Your task to perform on an android device: Check the weather Image 0: 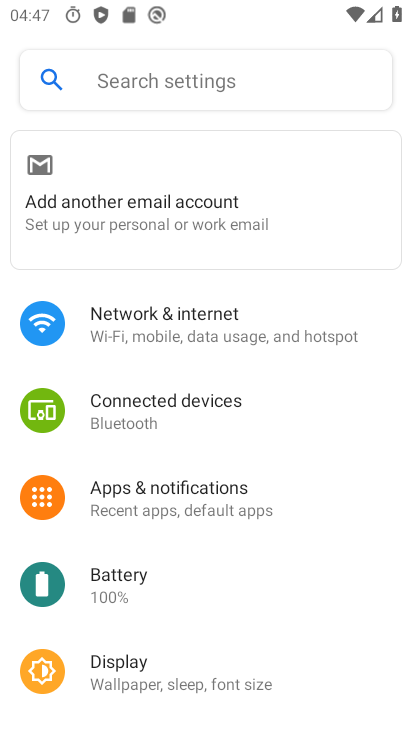
Step 0: press home button
Your task to perform on an android device: Check the weather Image 1: 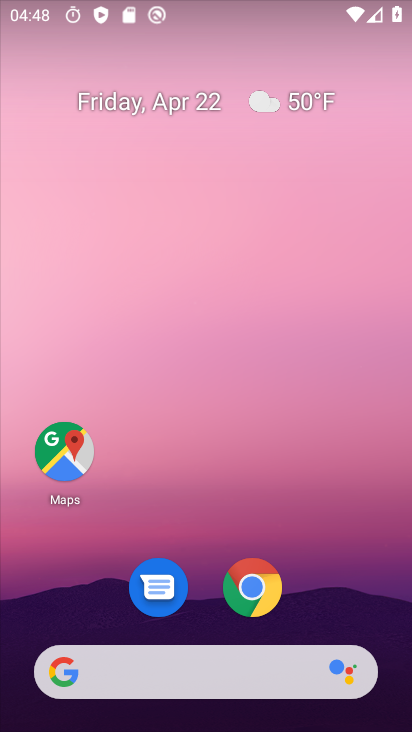
Step 1: click (322, 102)
Your task to perform on an android device: Check the weather Image 2: 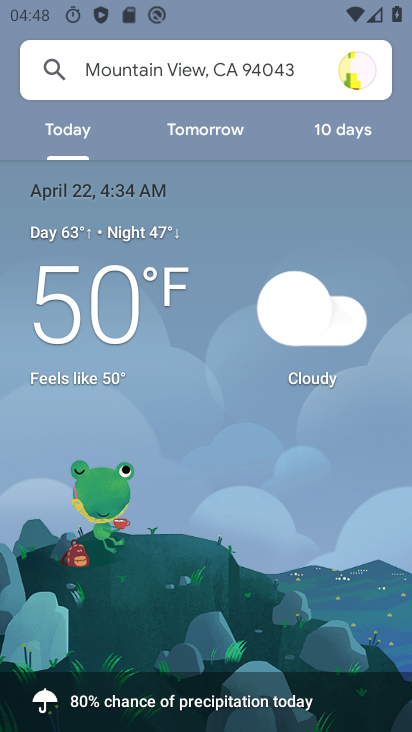
Step 2: task complete